Your task to perform on an android device: delete browsing data in the chrome app Image 0: 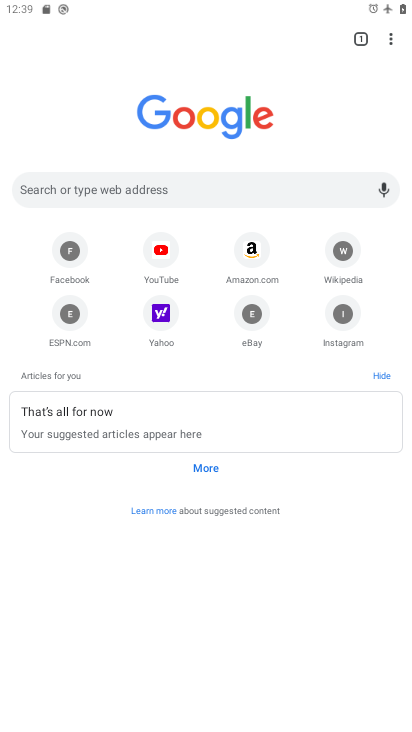
Step 0: press home button
Your task to perform on an android device: delete browsing data in the chrome app Image 1: 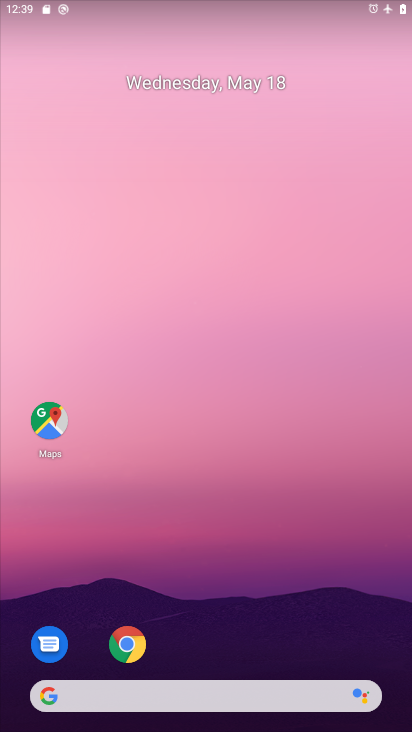
Step 1: click (134, 642)
Your task to perform on an android device: delete browsing data in the chrome app Image 2: 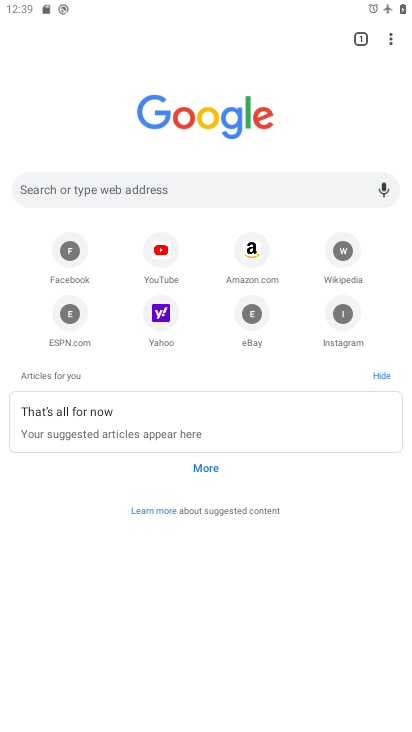
Step 2: click (393, 36)
Your task to perform on an android device: delete browsing data in the chrome app Image 3: 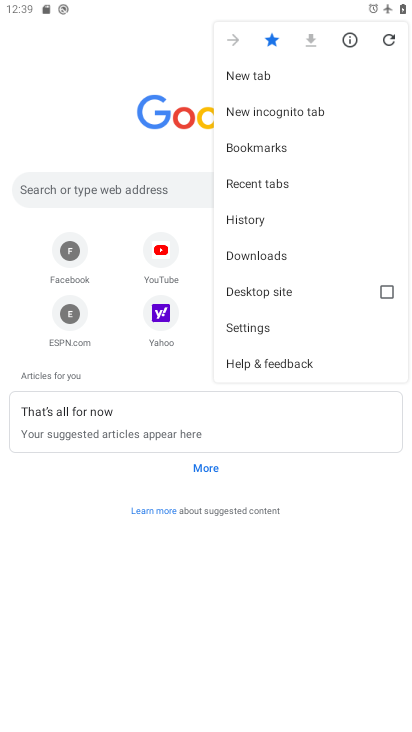
Step 3: click (273, 212)
Your task to perform on an android device: delete browsing data in the chrome app Image 4: 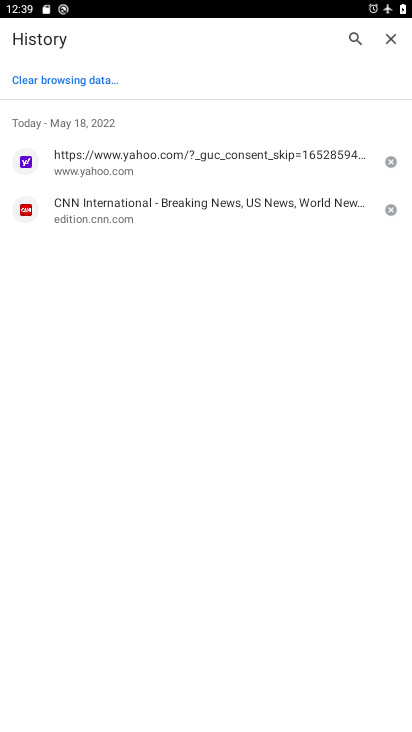
Step 4: click (62, 80)
Your task to perform on an android device: delete browsing data in the chrome app Image 5: 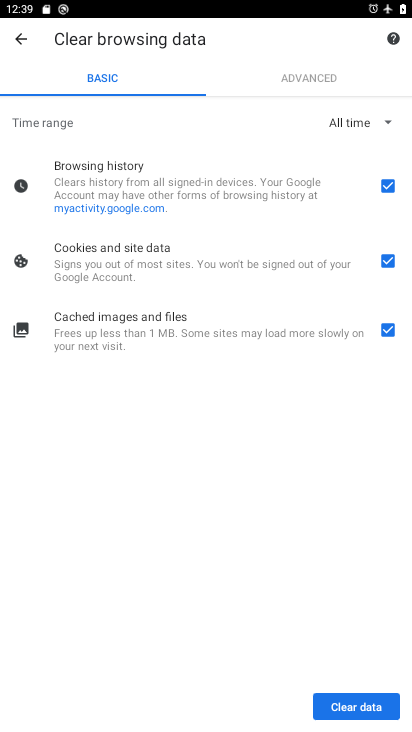
Step 5: click (378, 706)
Your task to perform on an android device: delete browsing data in the chrome app Image 6: 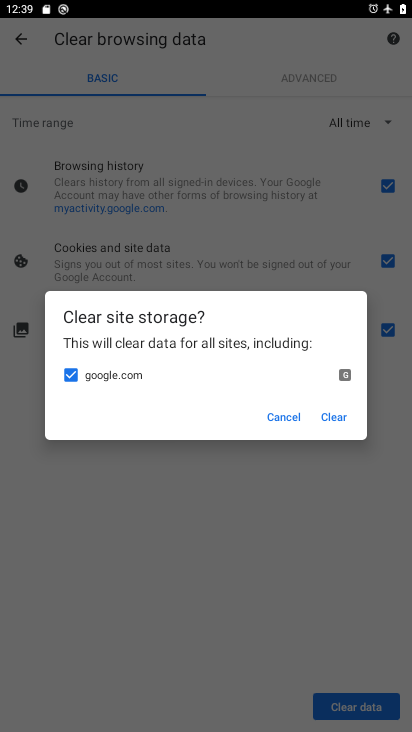
Step 6: click (333, 415)
Your task to perform on an android device: delete browsing data in the chrome app Image 7: 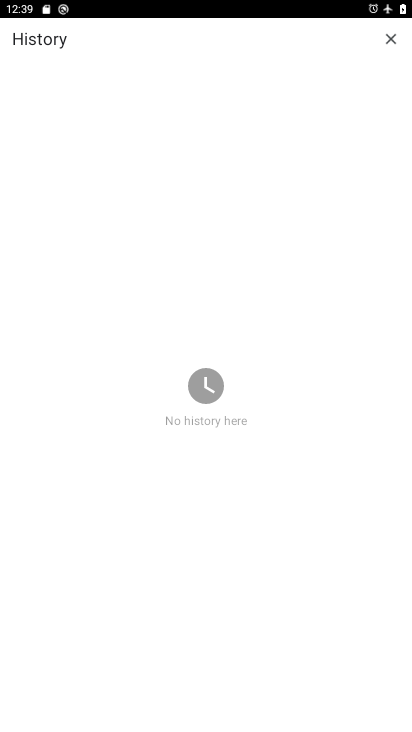
Step 7: task complete